Your task to perform on an android device: open chrome and create a bookmark for the current page Image 0: 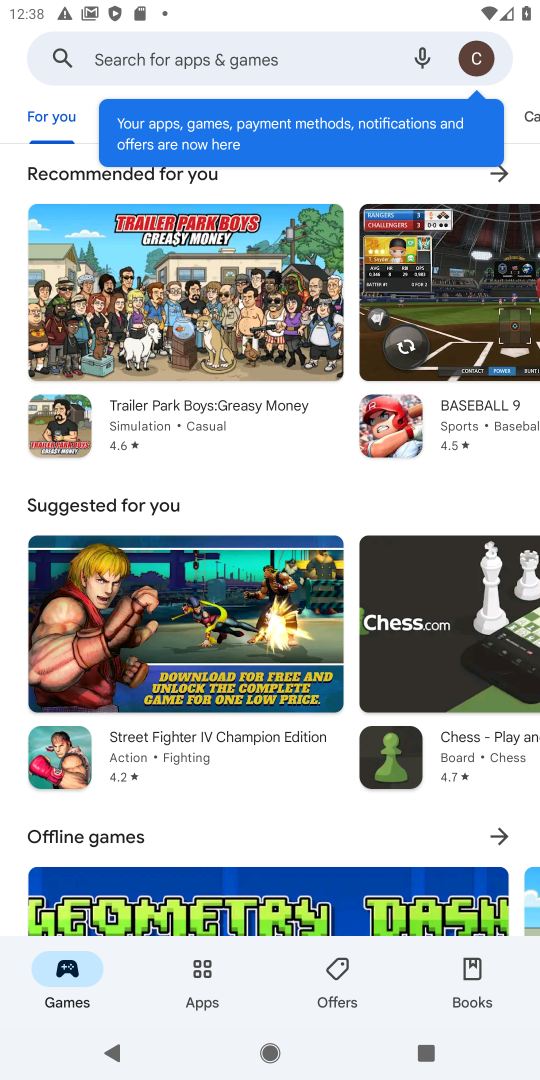
Step 0: task complete